Your task to perform on an android device: Find coffee shops on Maps Image 0: 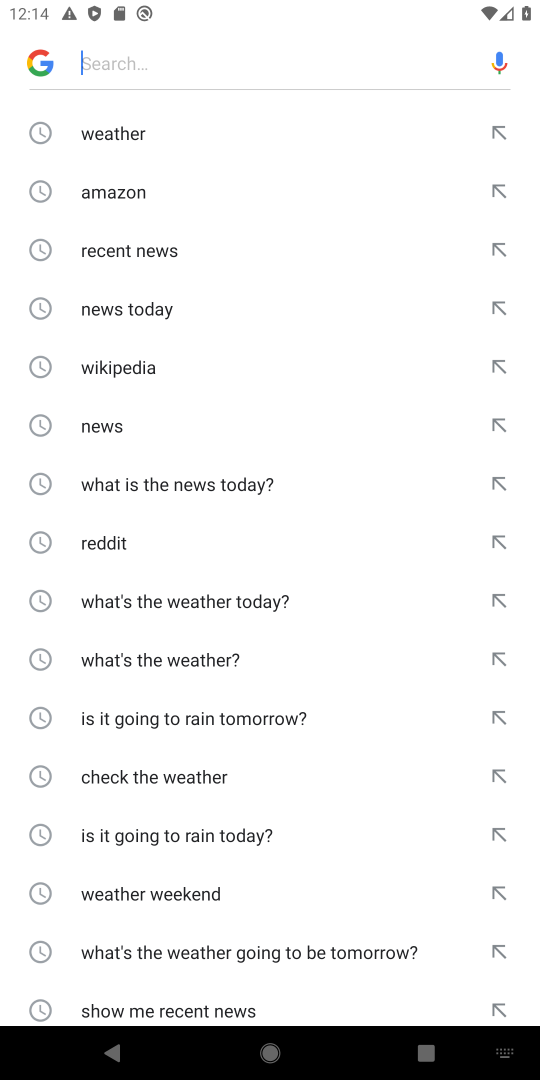
Step 0: press home button
Your task to perform on an android device: Find coffee shops on Maps Image 1: 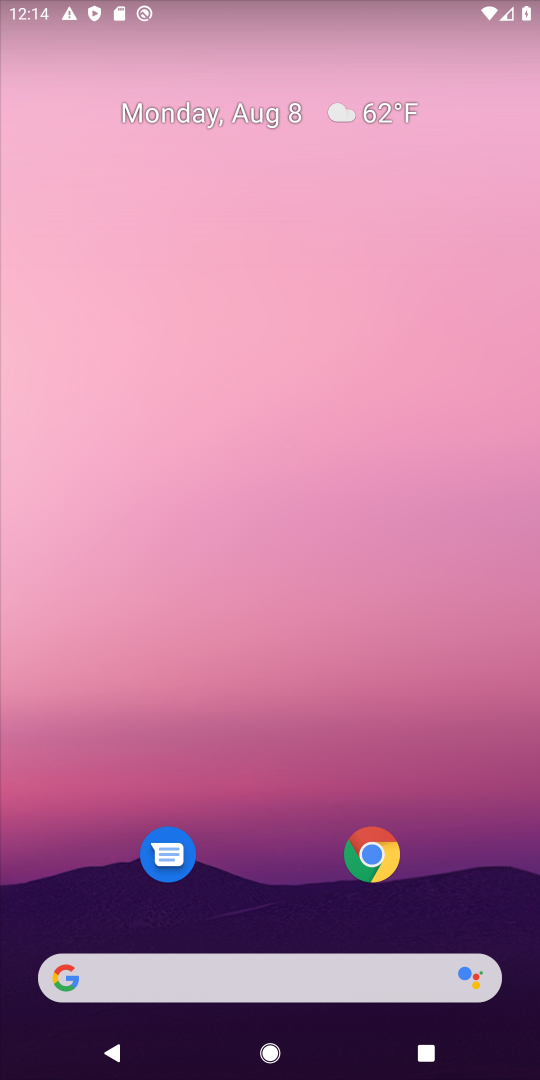
Step 1: drag from (252, 914) to (384, 48)
Your task to perform on an android device: Find coffee shops on Maps Image 2: 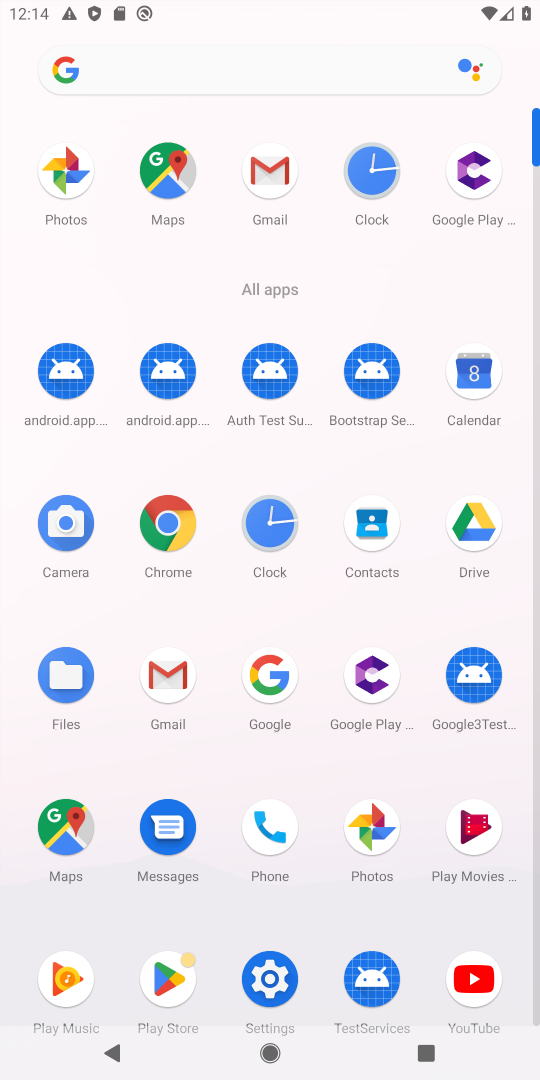
Step 2: click (154, 179)
Your task to perform on an android device: Find coffee shops on Maps Image 3: 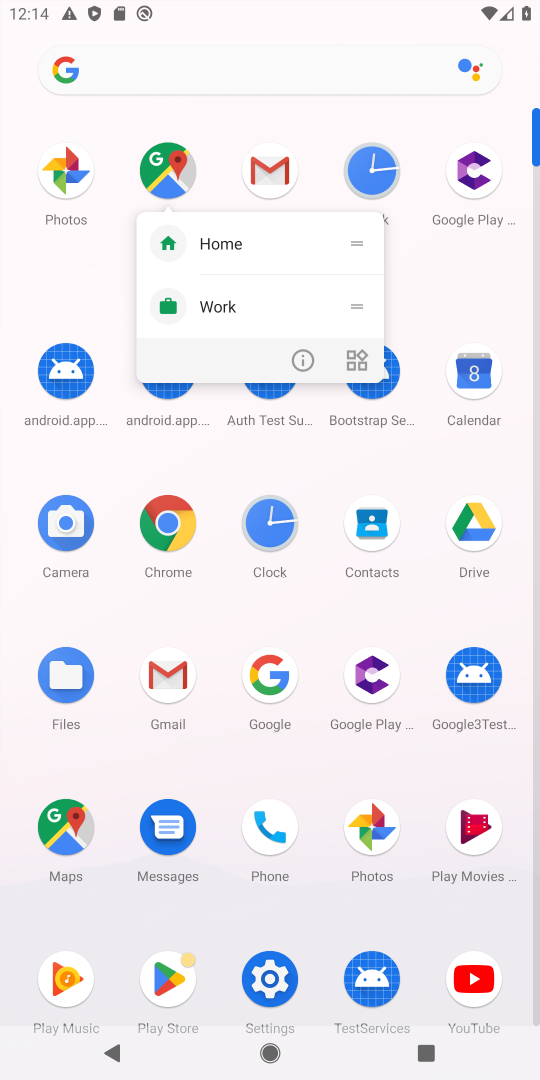
Step 3: click (161, 169)
Your task to perform on an android device: Find coffee shops on Maps Image 4: 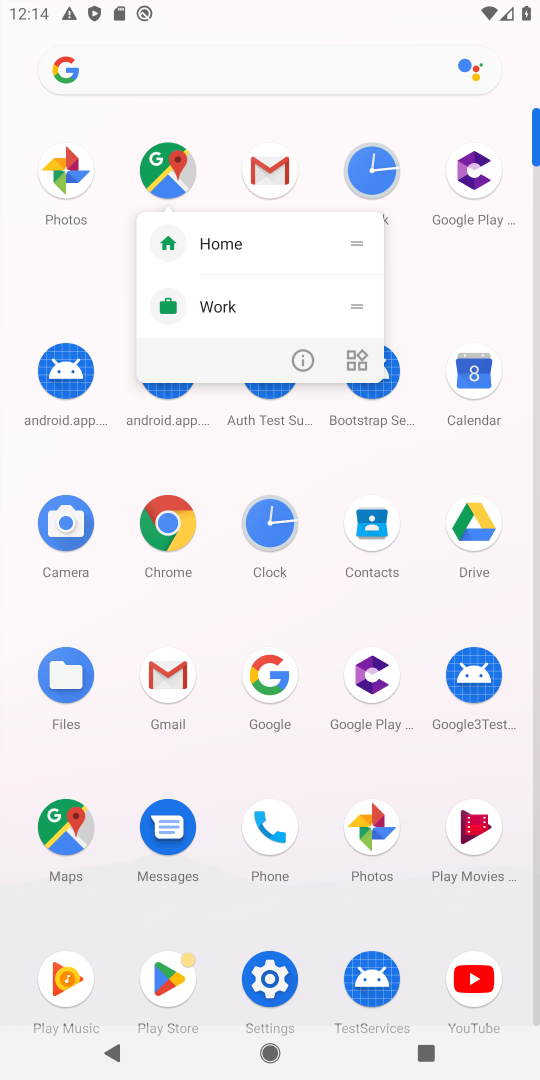
Step 4: click (161, 169)
Your task to perform on an android device: Find coffee shops on Maps Image 5: 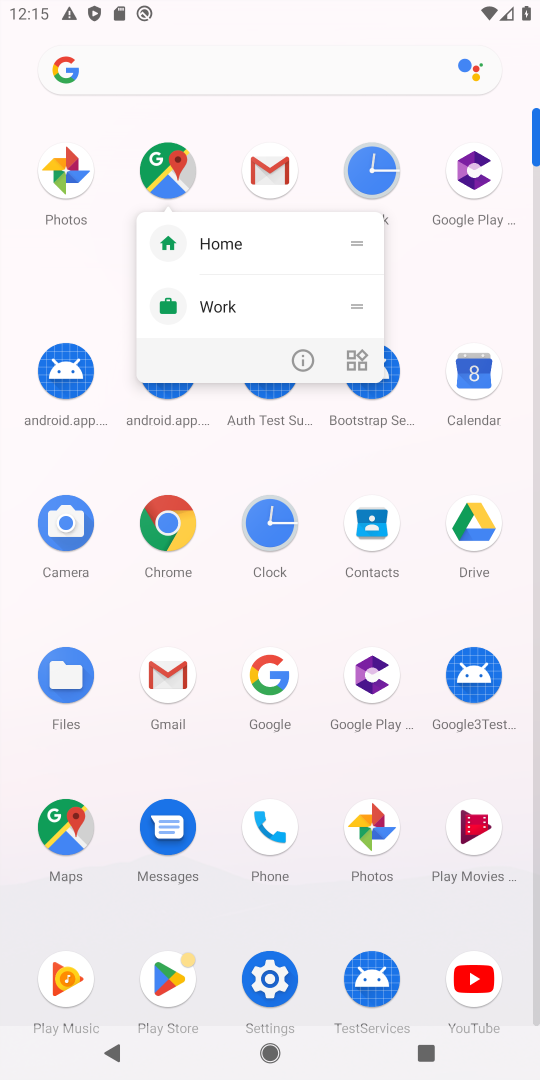
Step 5: click (161, 169)
Your task to perform on an android device: Find coffee shops on Maps Image 6: 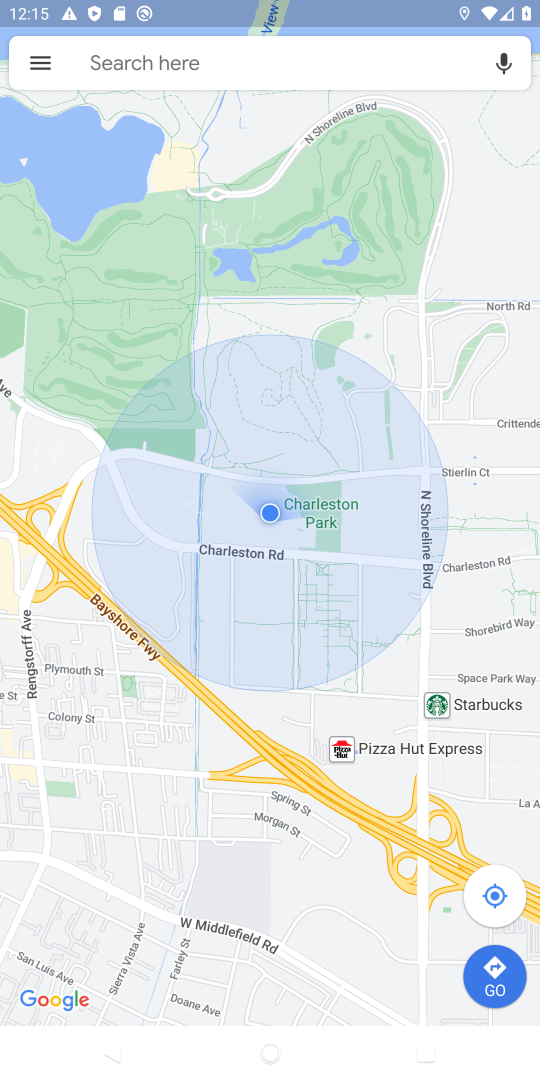
Step 6: click (239, 53)
Your task to perform on an android device: Find coffee shops on Maps Image 7: 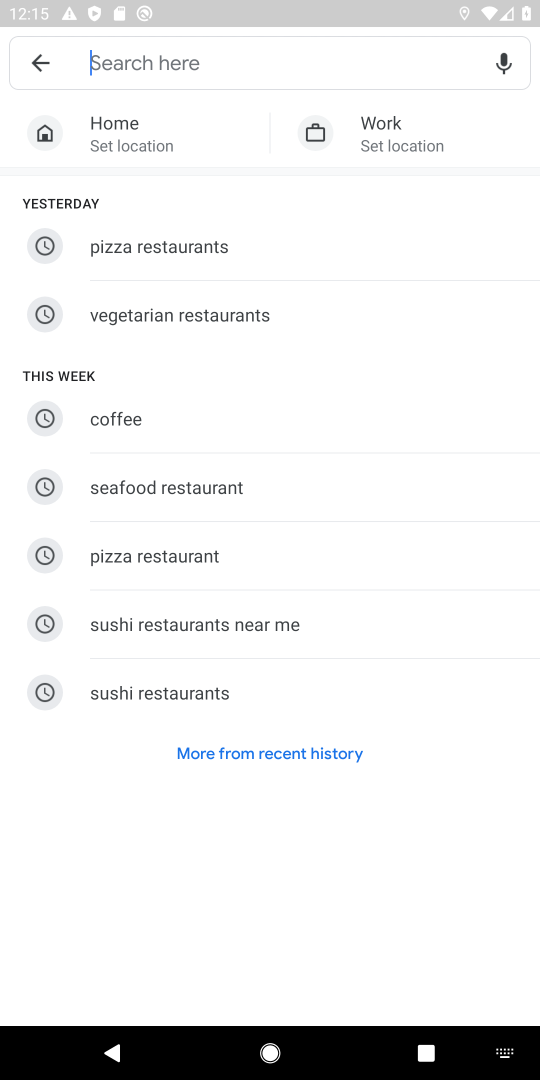
Step 7: type "coffee shops "
Your task to perform on an android device: Find coffee shops on Maps Image 8: 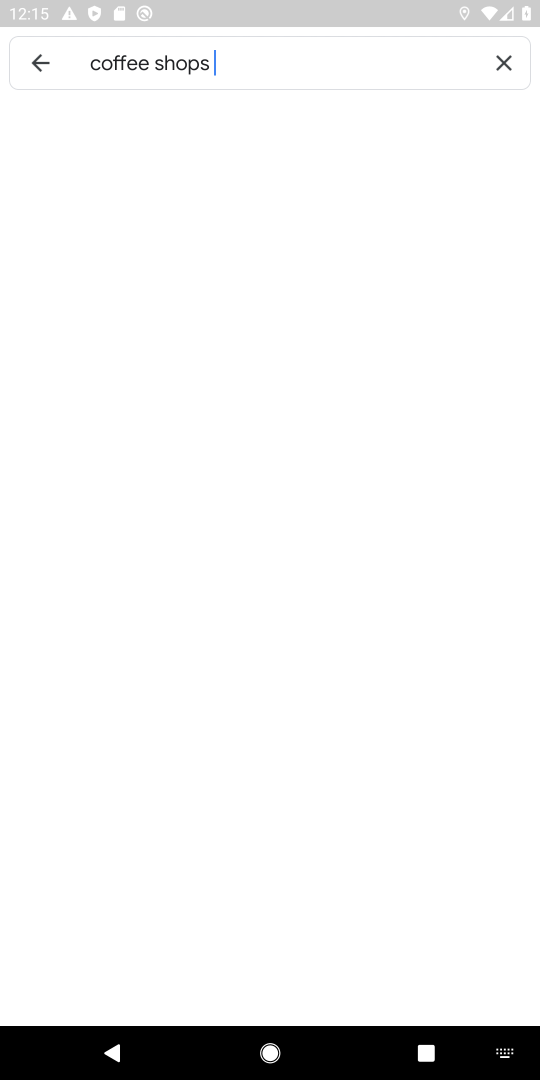
Step 8: press enter
Your task to perform on an android device: Find coffee shops on Maps Image 9: 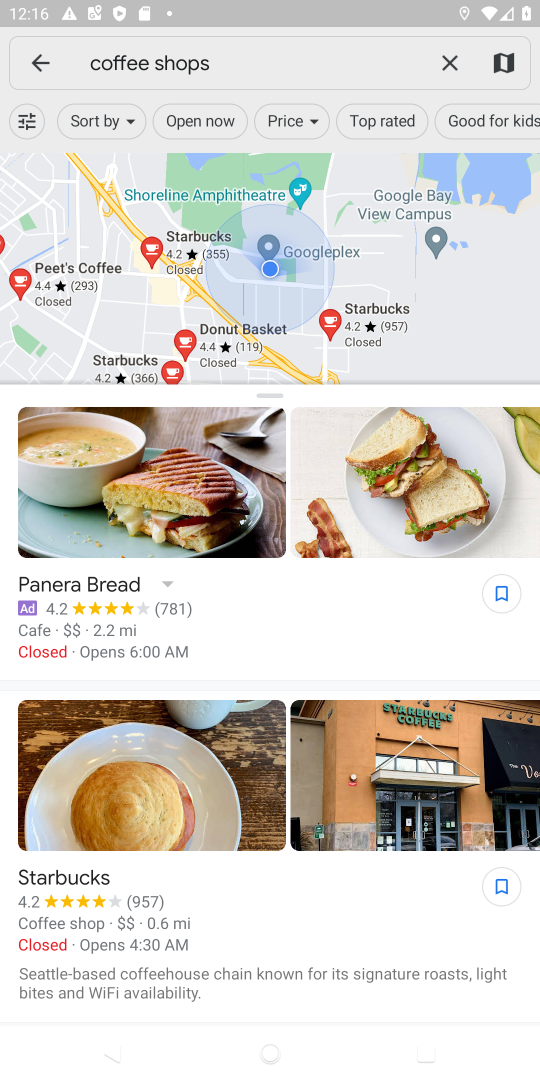
Step 9: task complete